Your task to perform on an android device: turn off priority inbox in the gmail app Image 0: 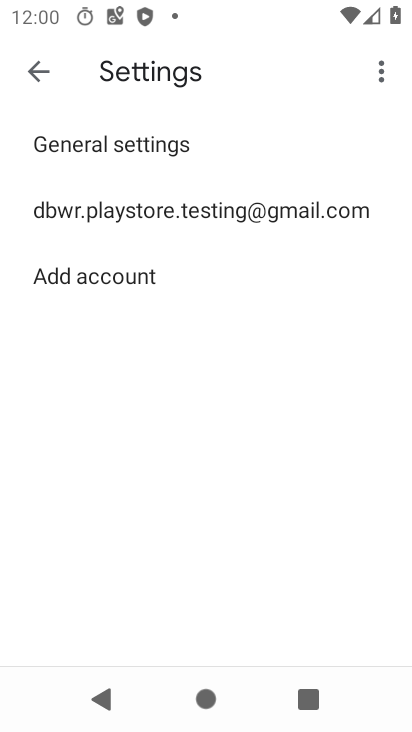
Step 0: press home button
Your task to perform on an android device: turn off priority inbox in the gmail app Image 1: 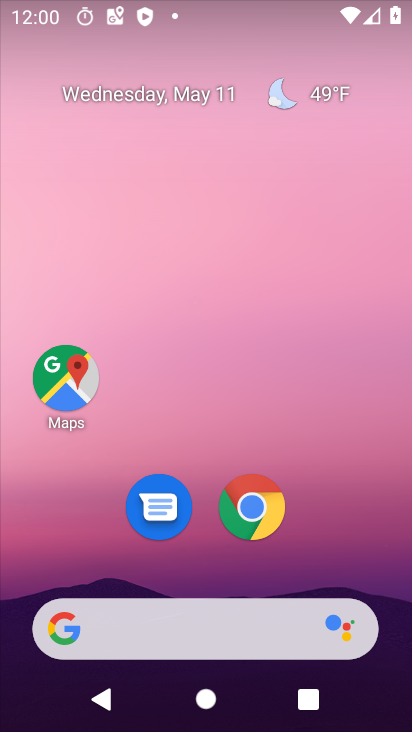
Step 1: drag from (219, 535) to (212, 154)
Your task to perform on an android device: turn off priority inbox in the gmail app Image 2: 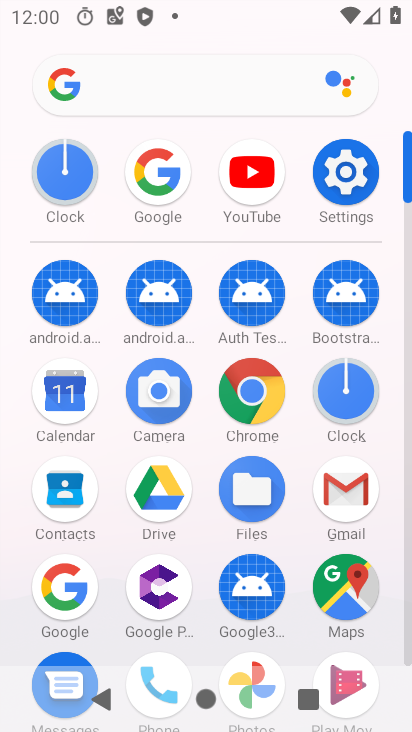
Step 2: click (346, 483)
Your task to perform on an android device: turn off priority inbox in the gmail app Image 3: 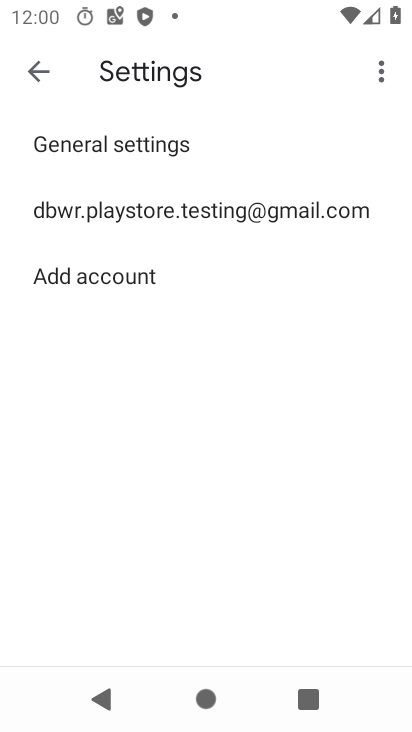
Step 3: click (194, 204)
Your task to perform on an android device: turn off priority inbox in the gmail app Image 4: 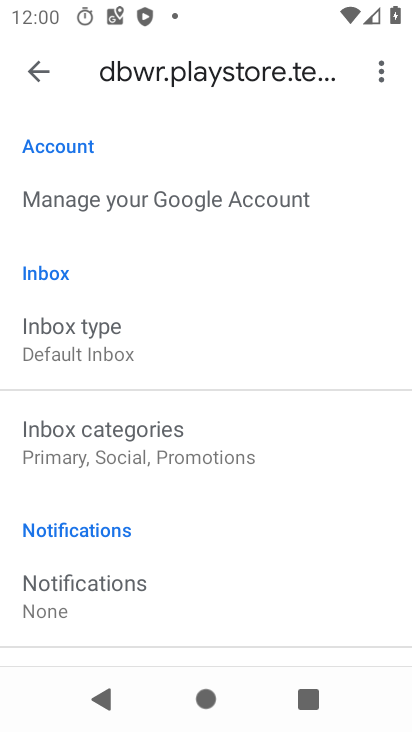
Step 4: click (71, 338)
Your task to perform on an android device: turn off priority inbox in the gmail app Image 5: 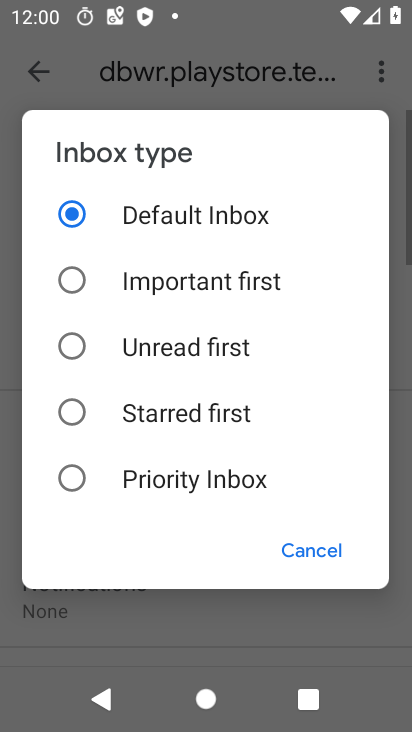
Step 5: click (76, 274)
Your task to perform on an android device: turn off priority inbox in the gmail app Image 6: 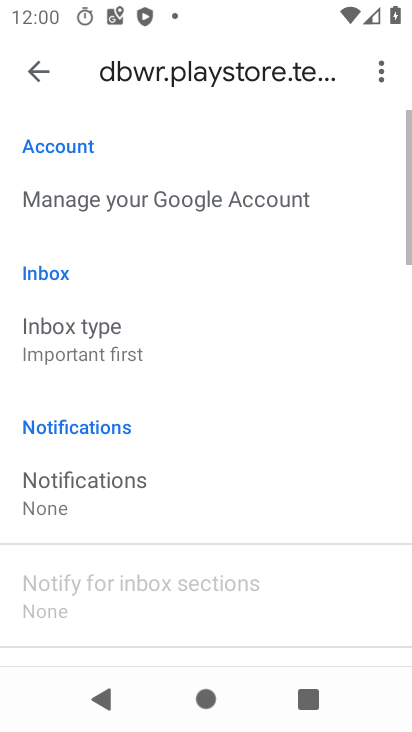
Step 6: task complete